Your task to perform on an android device: check google app version Image 0: 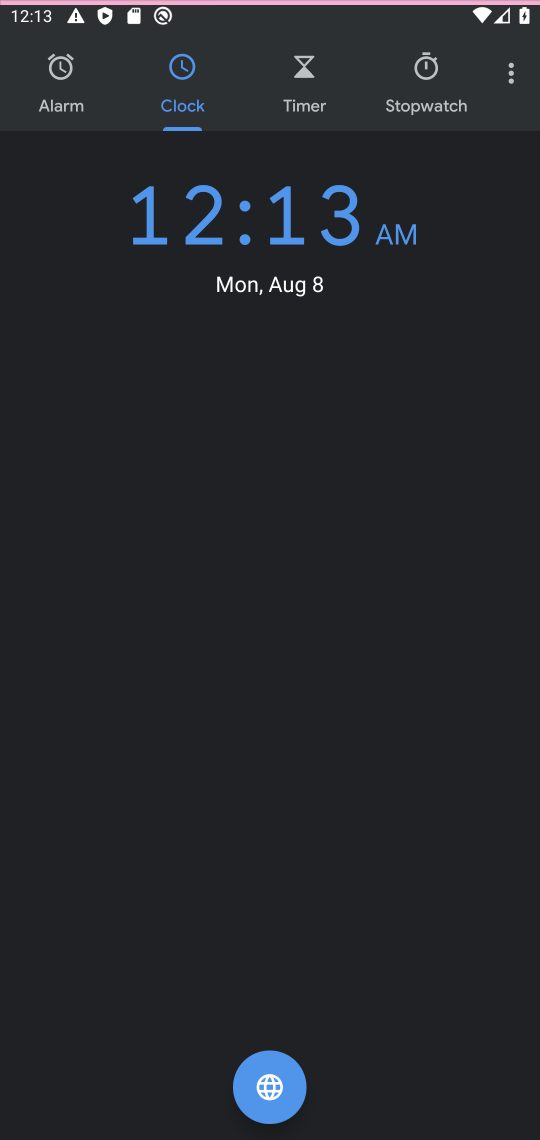
Step 0: drag from (498, 890) to (289, 70)
Your task to perform on an android device: check google app version Image 1: 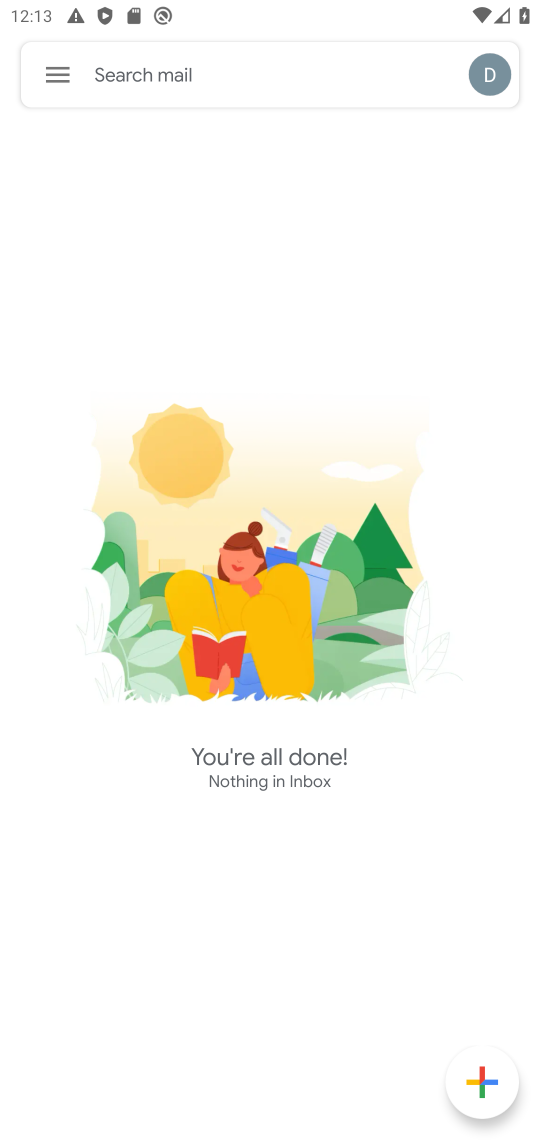
Step 1: press home button
Your task to perform on an android device: check google app version Image 2: 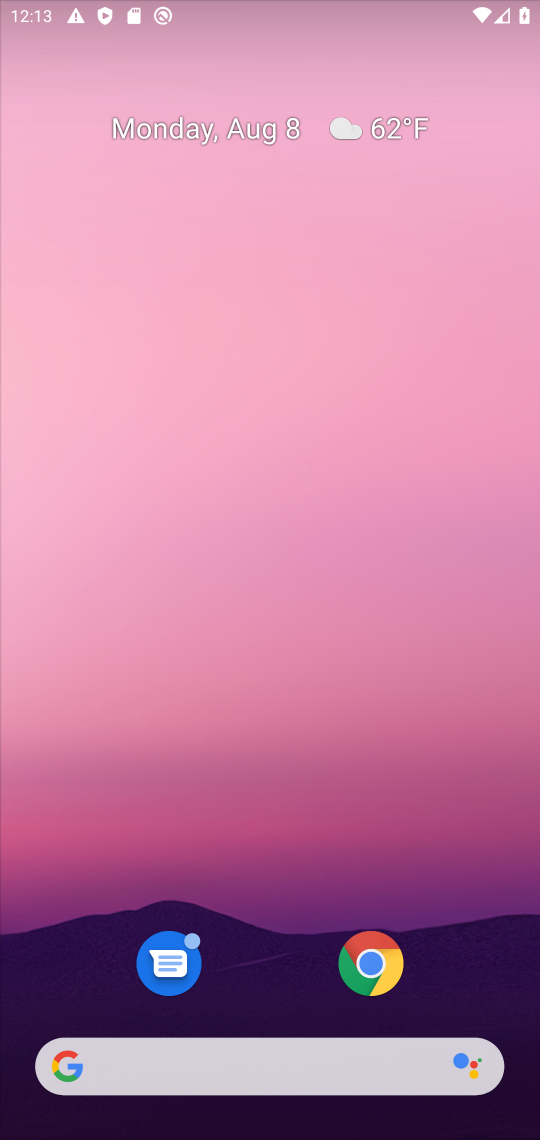
Step 2: drag from (507, 998) to (136, 7)
Your task to perform on an android device: check google app version Image 3: 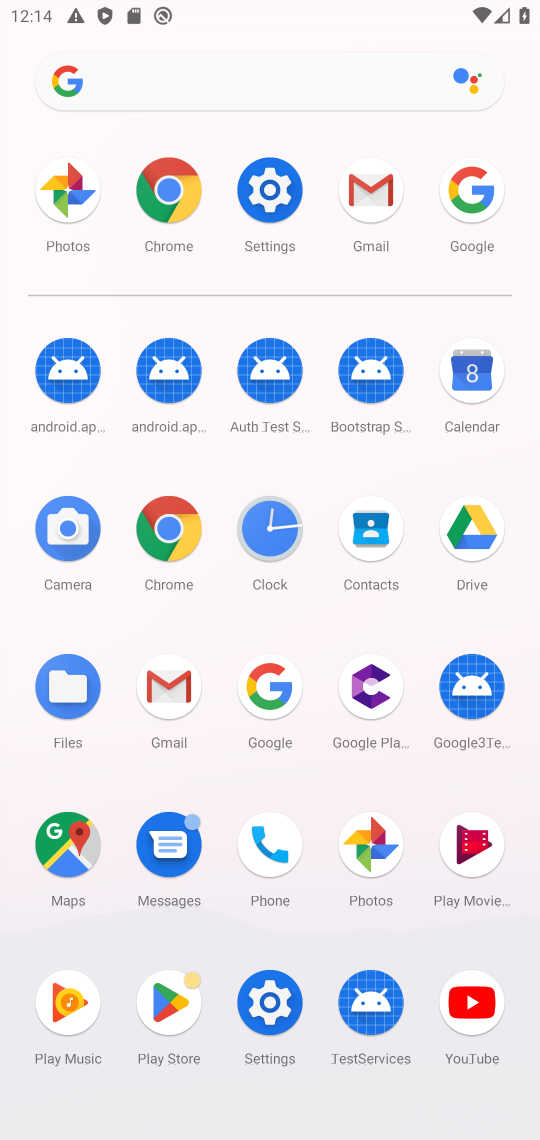
Step 3: click (285, 699)
Your task to perform on an android device: check google app version Image 4: 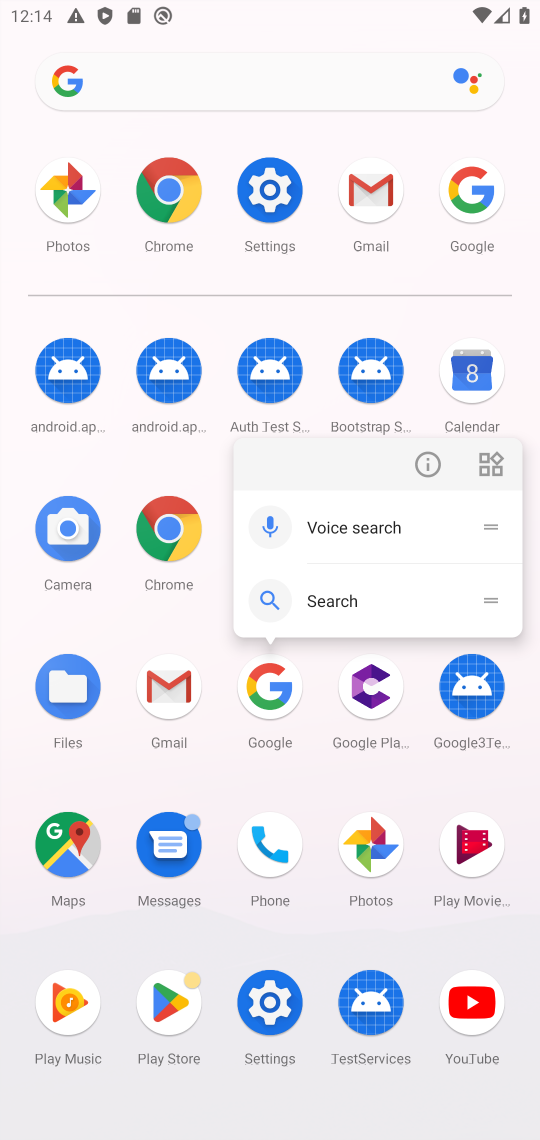
Step 4: click (429, 459)
Your task to perform on an android device: check google app version Image 5: 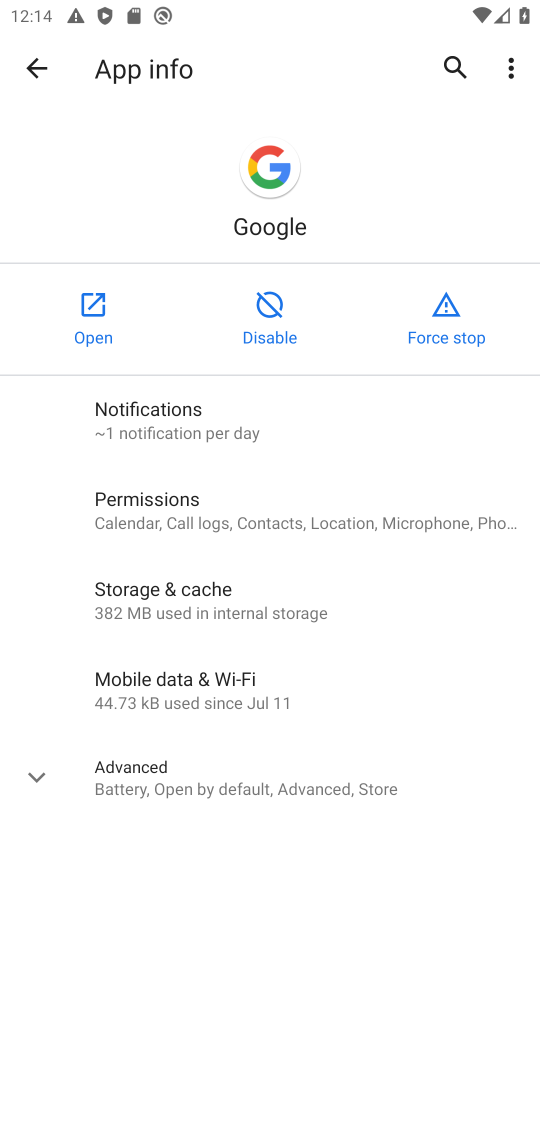
Step 5: click (186, 761)
Your task to perform on an android device: check google app version Image 6: 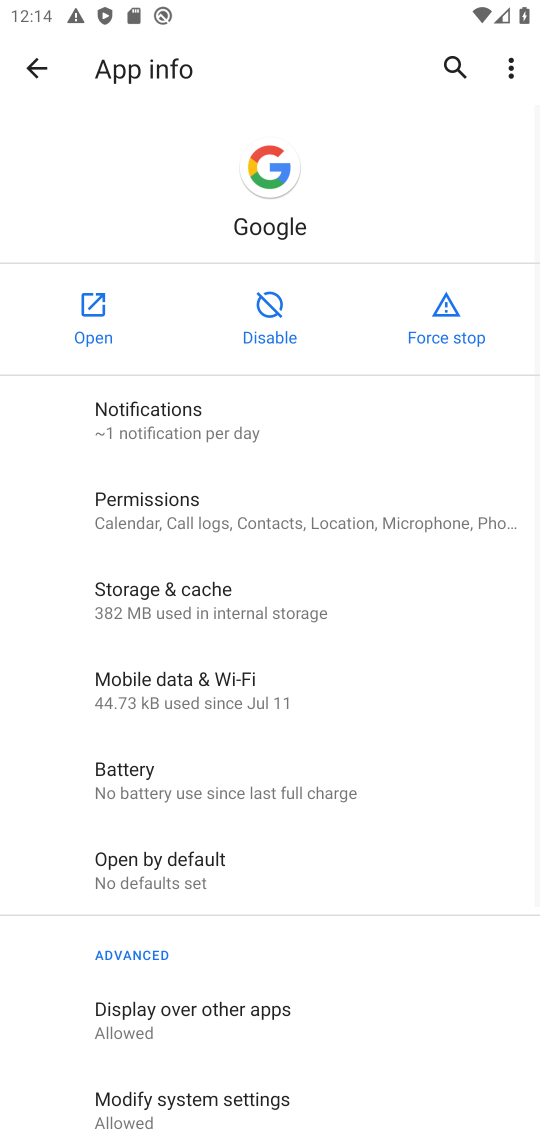
Step 6: task complete